Your task to perform on an android device: turn off smart reply in the gmail app Image 0: 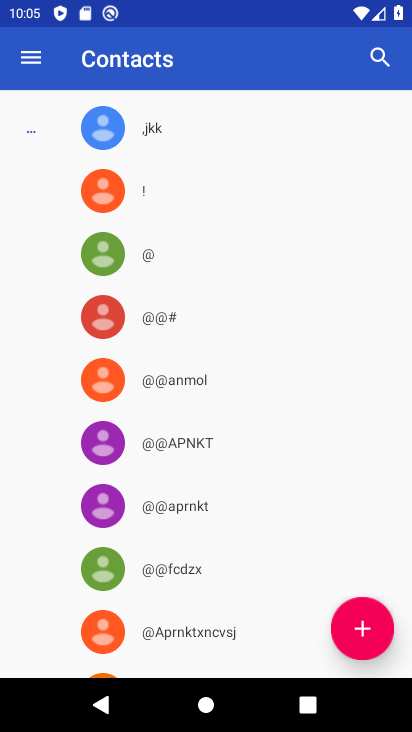
Step 0: press back button
Your task to perform on an android device: turn off smart reply in the gmail app Image 1: 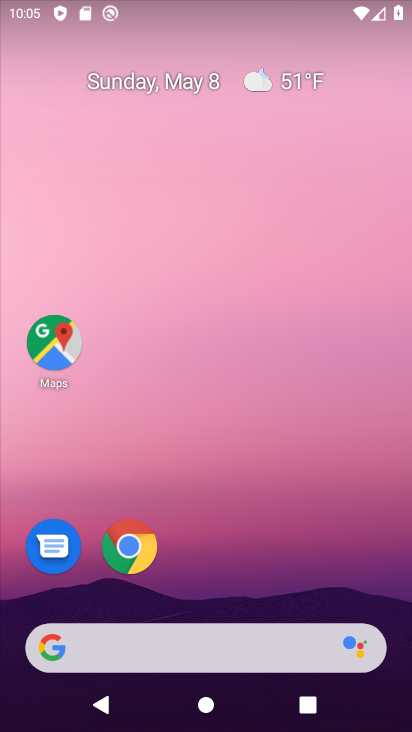
Step 1: drag from (262, 567) to (248, 51)
Your task to perform on an android device: turn off smart reply in the gmail app Image 2: 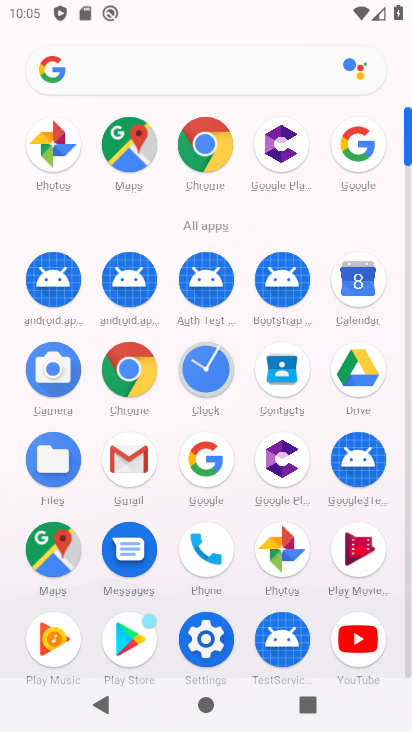
Step 2: click (131, 458)
Your task to perform on an android device: turn off smart reply in the gmail app Image 3: 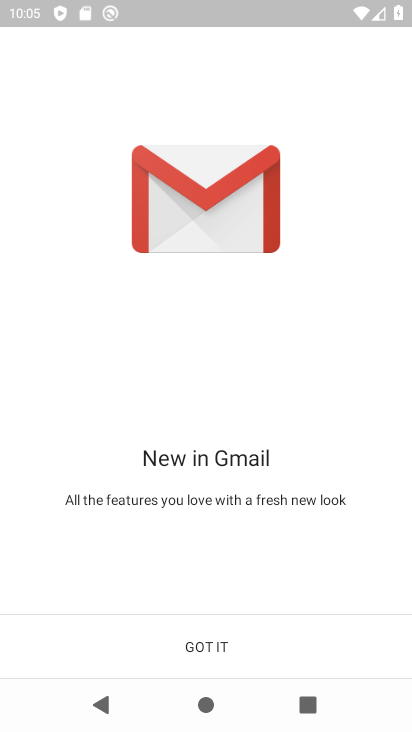
Step 3: click (200, 649)
Your task to perform on an android device: turn off smart reply in the gmail app Image 4: 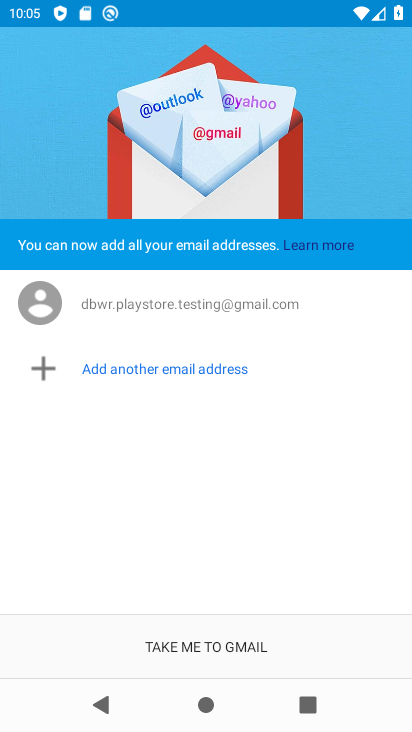
Step 4: click (195, 645)
Your task to perform on an android device: turn off smart reply in the gmail app Image 5: 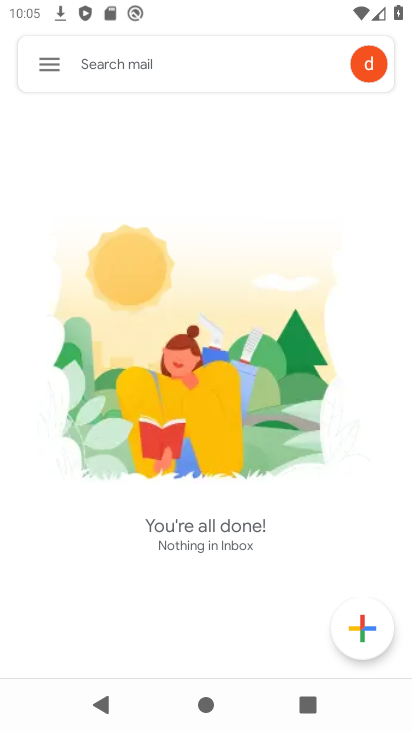
Step 5: click (50, 67)
Your task to perform on an android device: turn off smart reply in the gmail app Image 6: 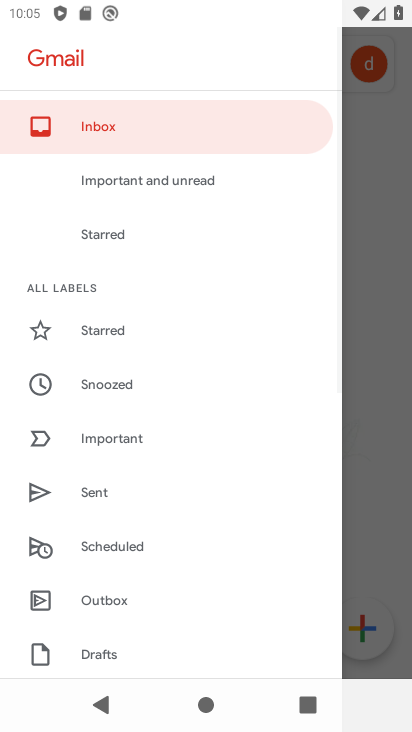
Step 6: drag from (123, 506) to (152, 364)
Your task to perform on an android device: turn off smart reply in the gmail app Image 7: 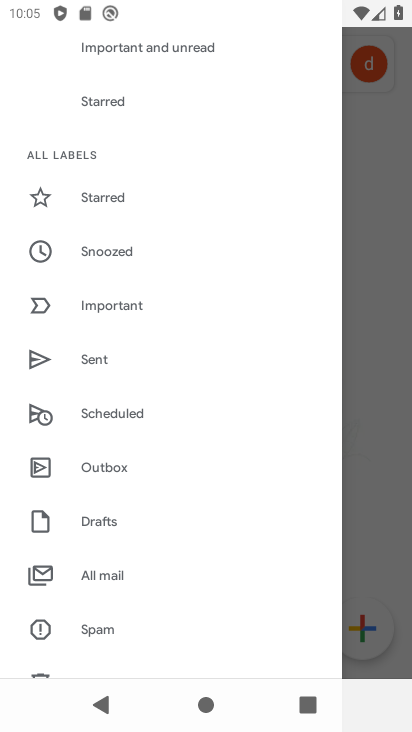
Step 7: drag from (134, 558) to (179, 411)
Your task to perform on an android device: turn off smart reply in the gmail app Image 8: 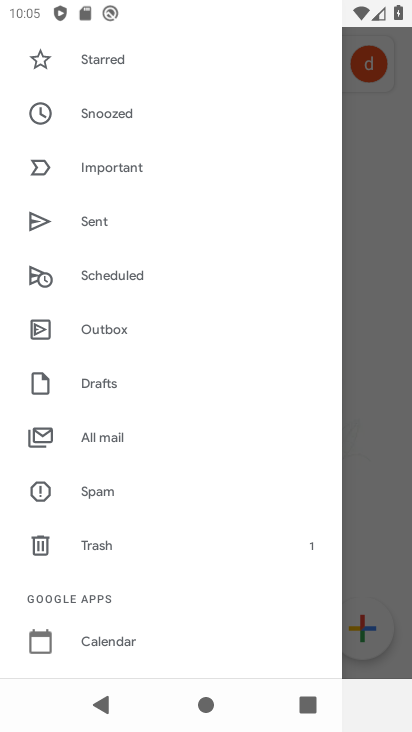
Step 8: drag from (120, 592) to (172, 479)
Your task to perform on an android device: turn off smart reply in the gmail app Image 9: 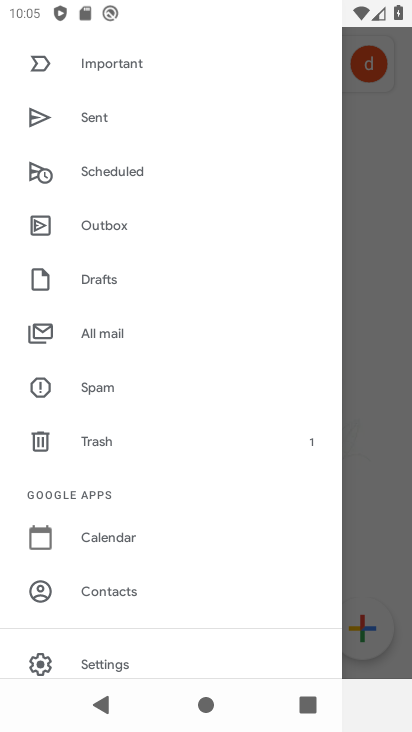
Step 9: drag from (172, 598) to (211, 478)
Your task to perform on an android device: turn off smart reply in the gmail app Image 10: 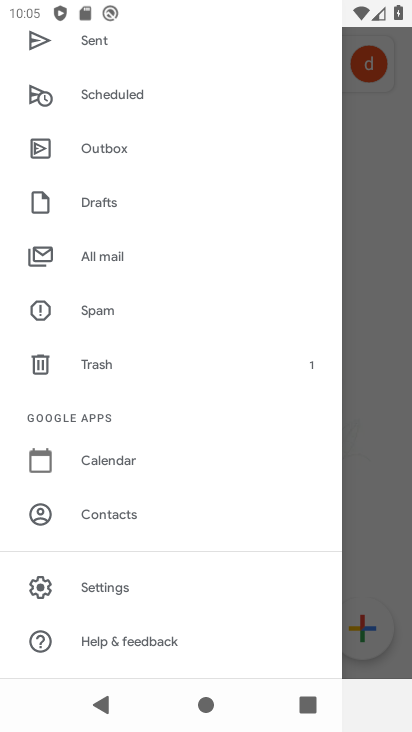
Step 10: click (119, 581)
Your task to perform on an android device: turn off smart reply in the gmail app Image 11: 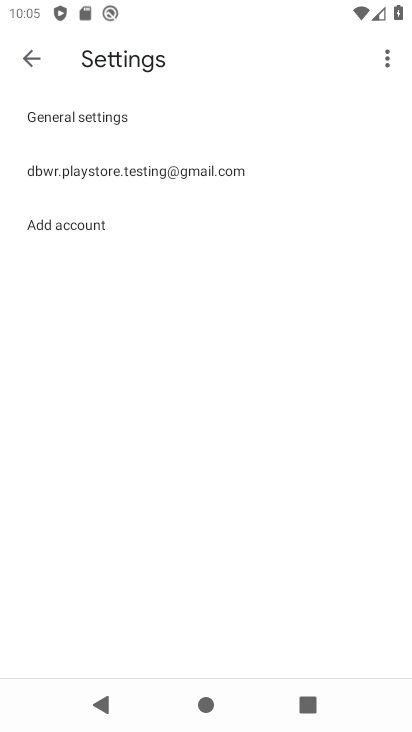
Step 11: click (164, 175)
Your task to perform on an android device: turn off smart reply in the gmail app Image 12: 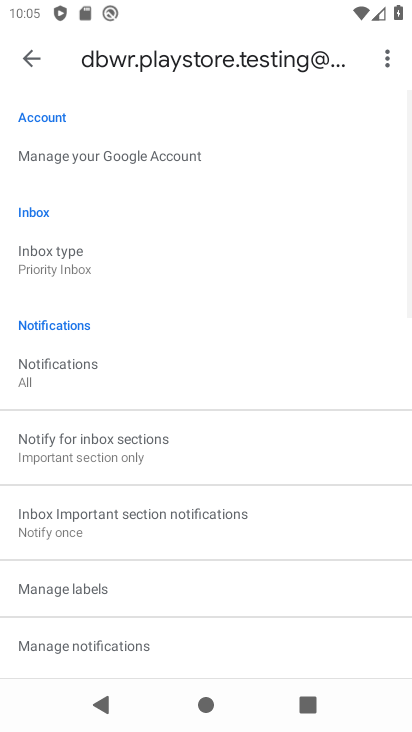
Step 12: drag from (157, 372) to (229, 250)
Your task to perform on an android device: turn off smart reply in the gmail app Image 13: 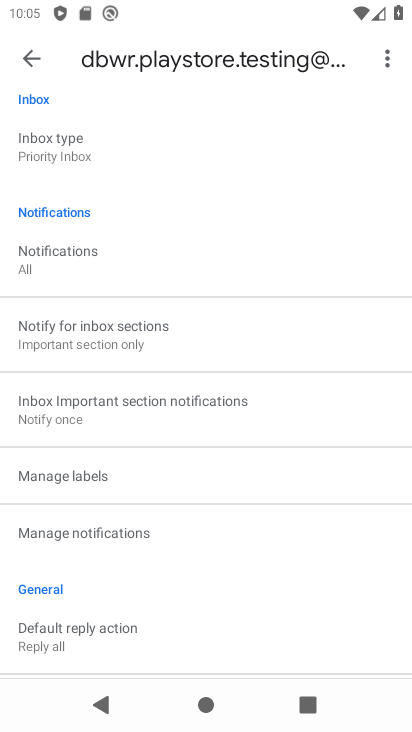
Step 13: drag from (182, 457) to (230, 371)
Your task to perform on an android device: turn off smart reply in the gmail app Image 14: 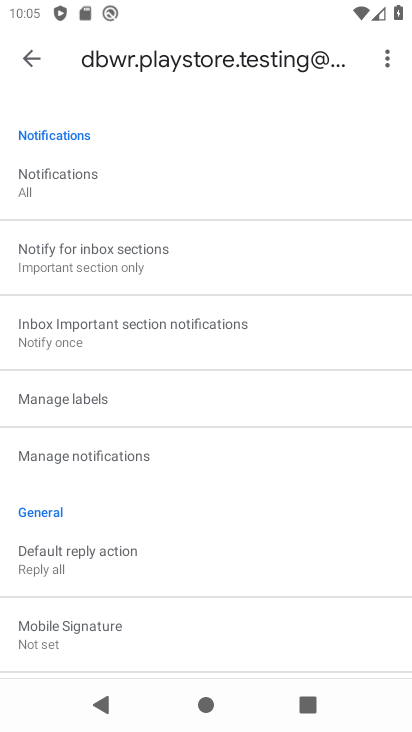
Step 14: drag from (156, 520) to (234, 413)
Your task to perform on an android device: turn off smart reply in the gmail app Image 15: 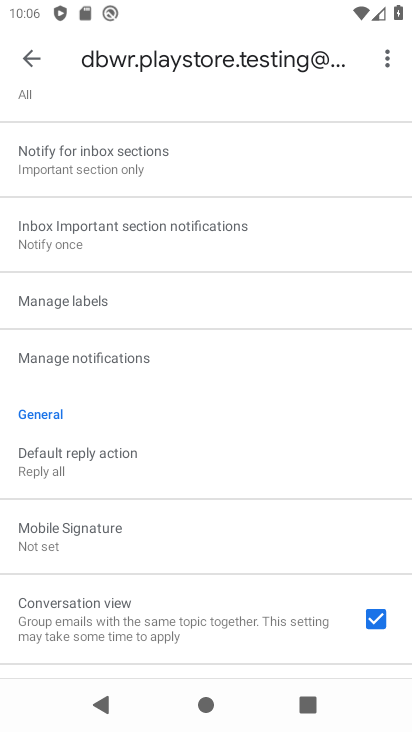
Step 15: drag from (168, 543) to (261, 430)
Your task to perform on an android device: turn off smart reply in the gmail app Image 16: 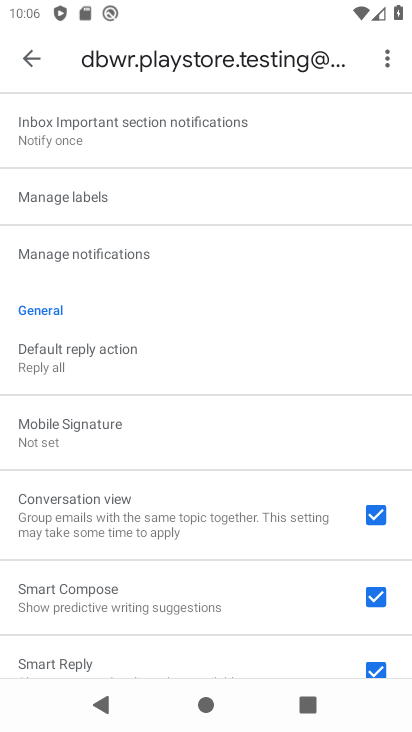
Step 16: drag from (171, 577) to (285, 434)
Your task to perform on an android device: turn off smart reply in the gmail app Image 17: 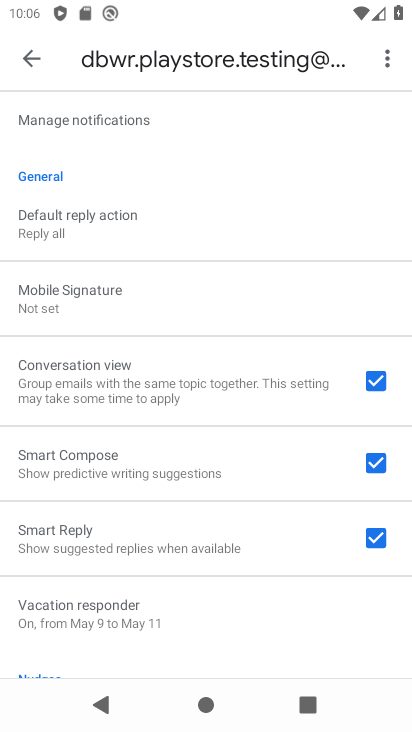
Step 17: click (370, 535)
Your task to perform on an android device: turn off smart reply in the gmail app Image 18: 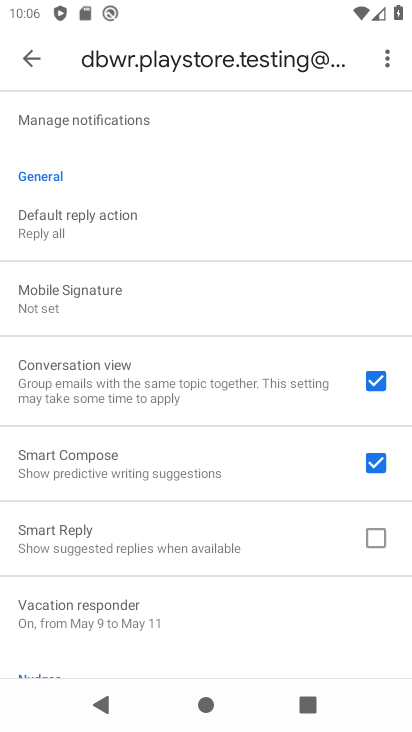
Step 18: task complete